Your task to perform on an android device: install app "Google Play services" Image 0: 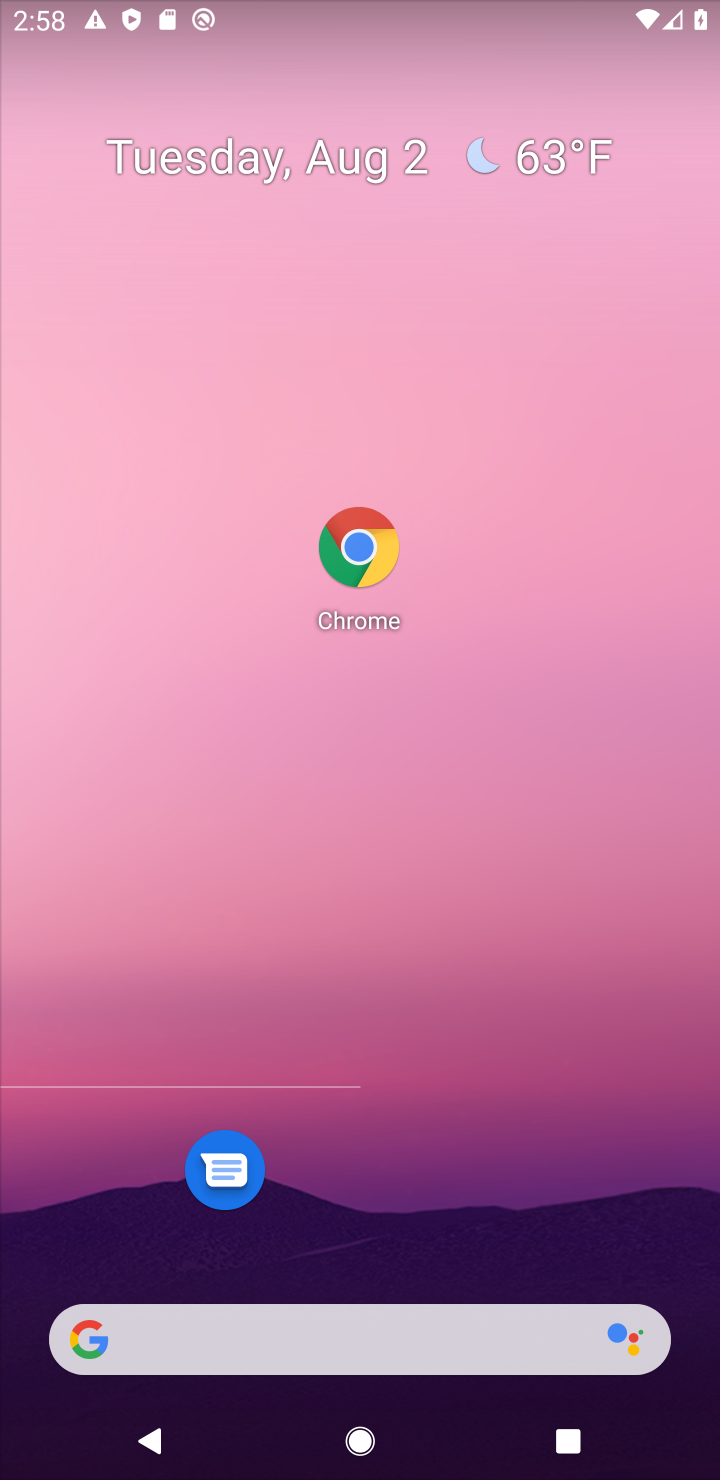
Step 0: press back button
Your task to perform on an android device: install app "Google Play services" Image 1: 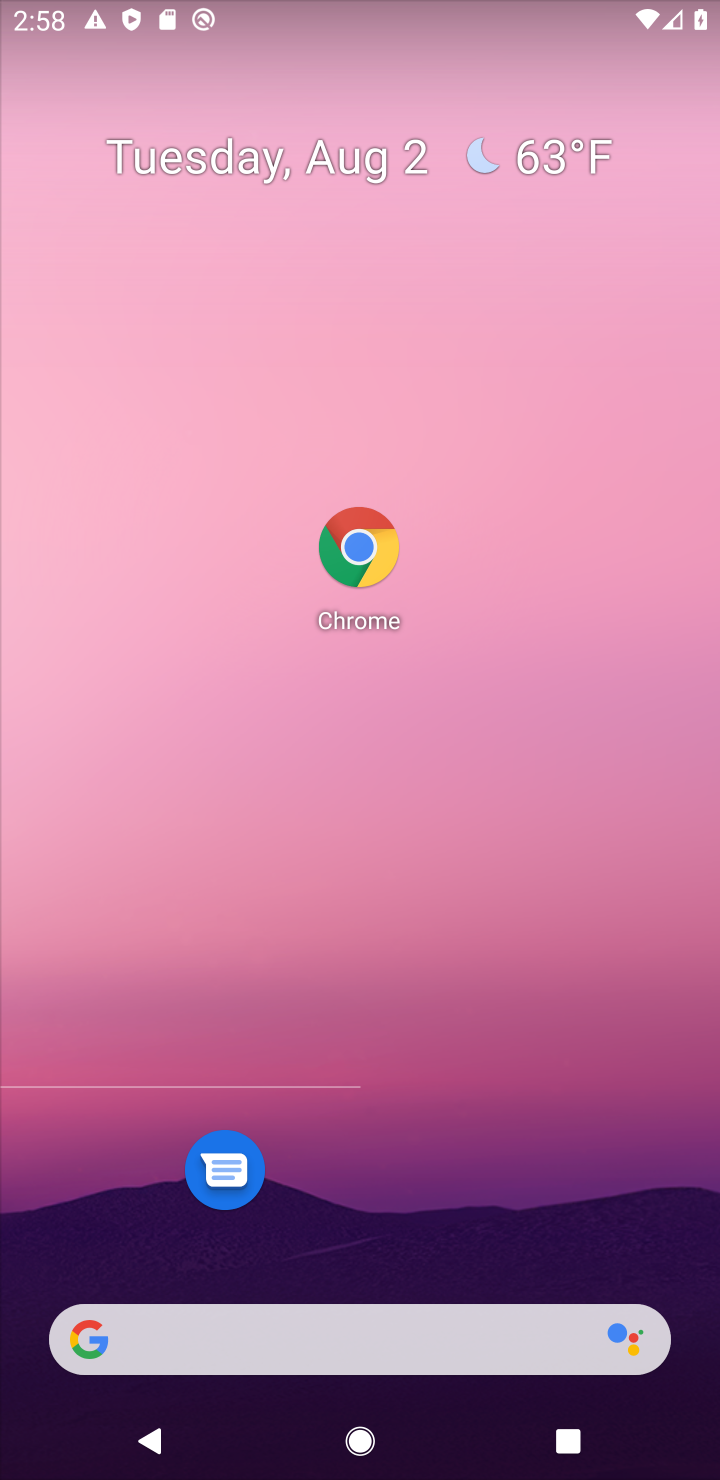
Step 1: drag from (418, 487) to (244, 581)
Your task to perform on an android device: install app "Google Play services" Image 2: 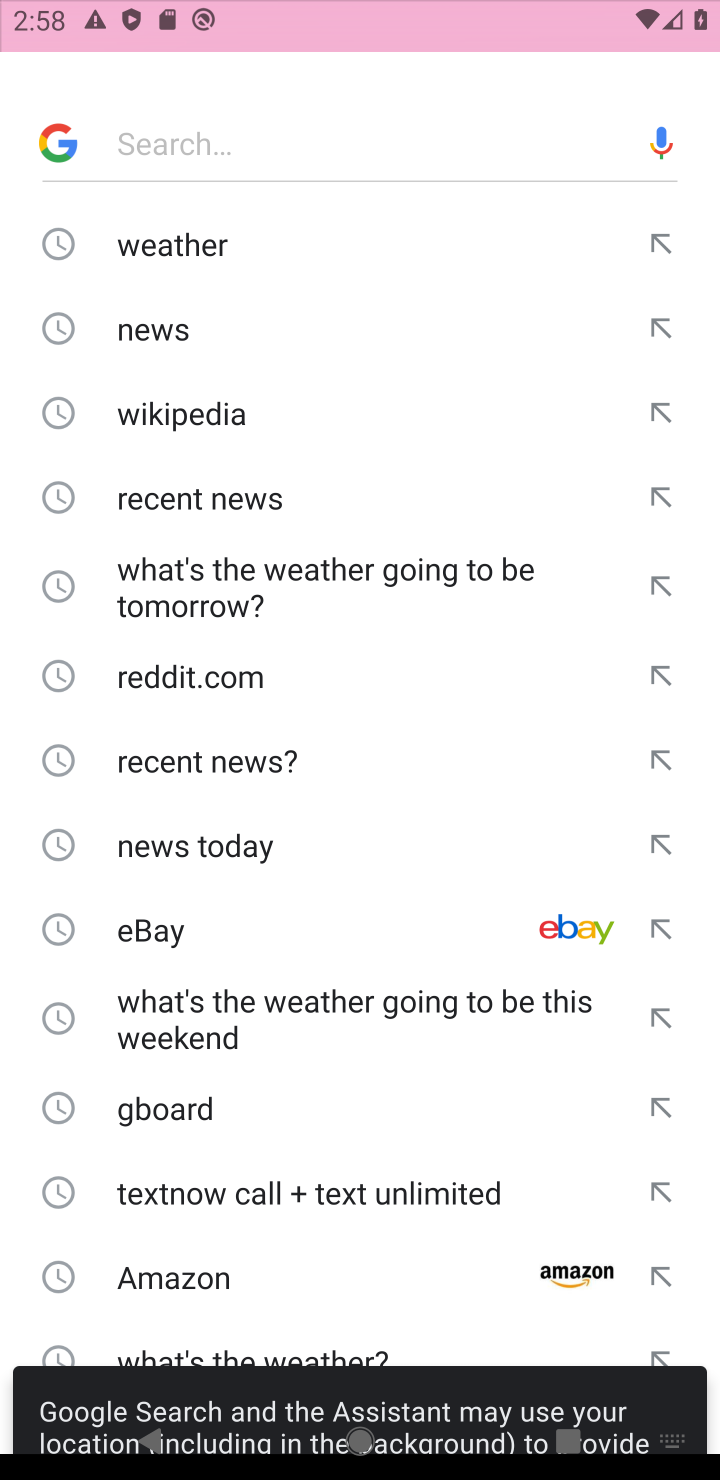
Step 2: click (201, 394)
Your task to perform on an android device: install app "Google Play services" Image 3: 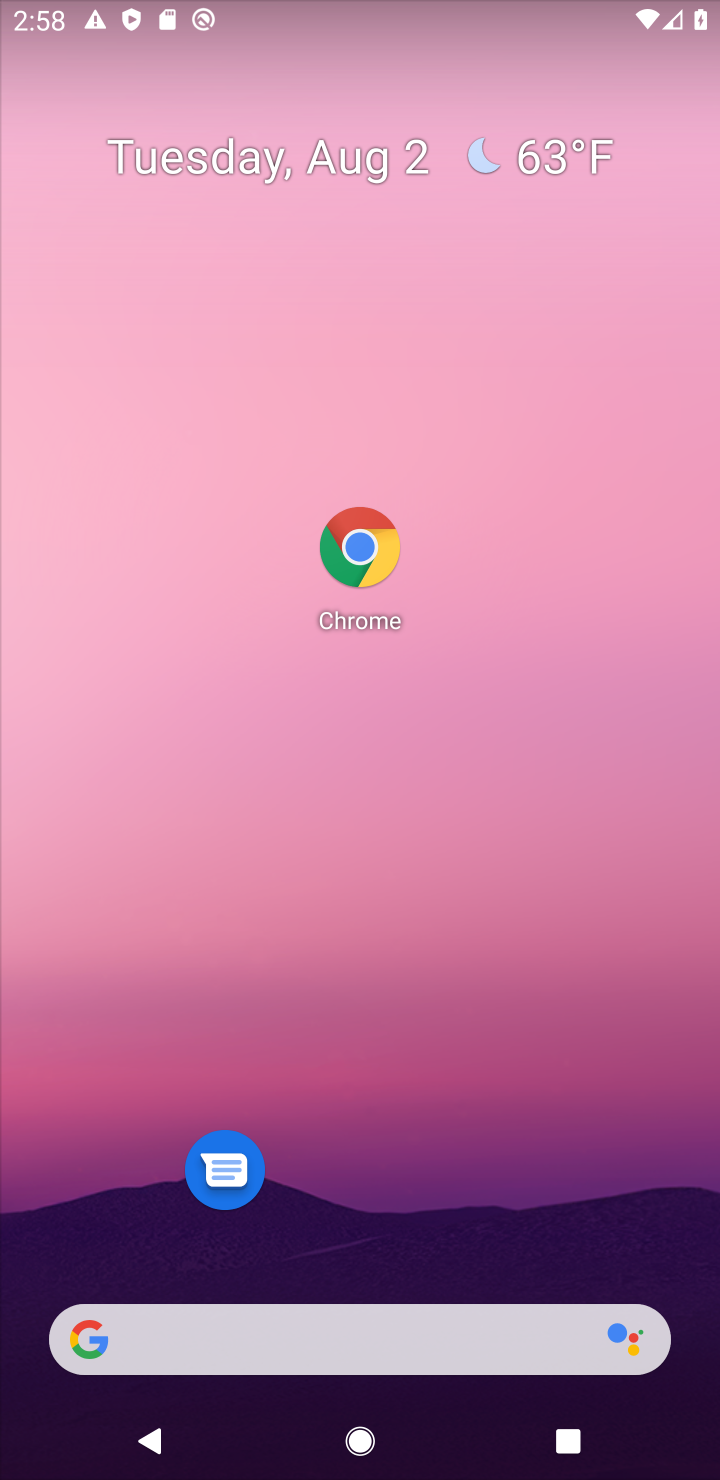
Step 3: press back button
Your task to perform on an android device: install app "Google Play services" Image 4: 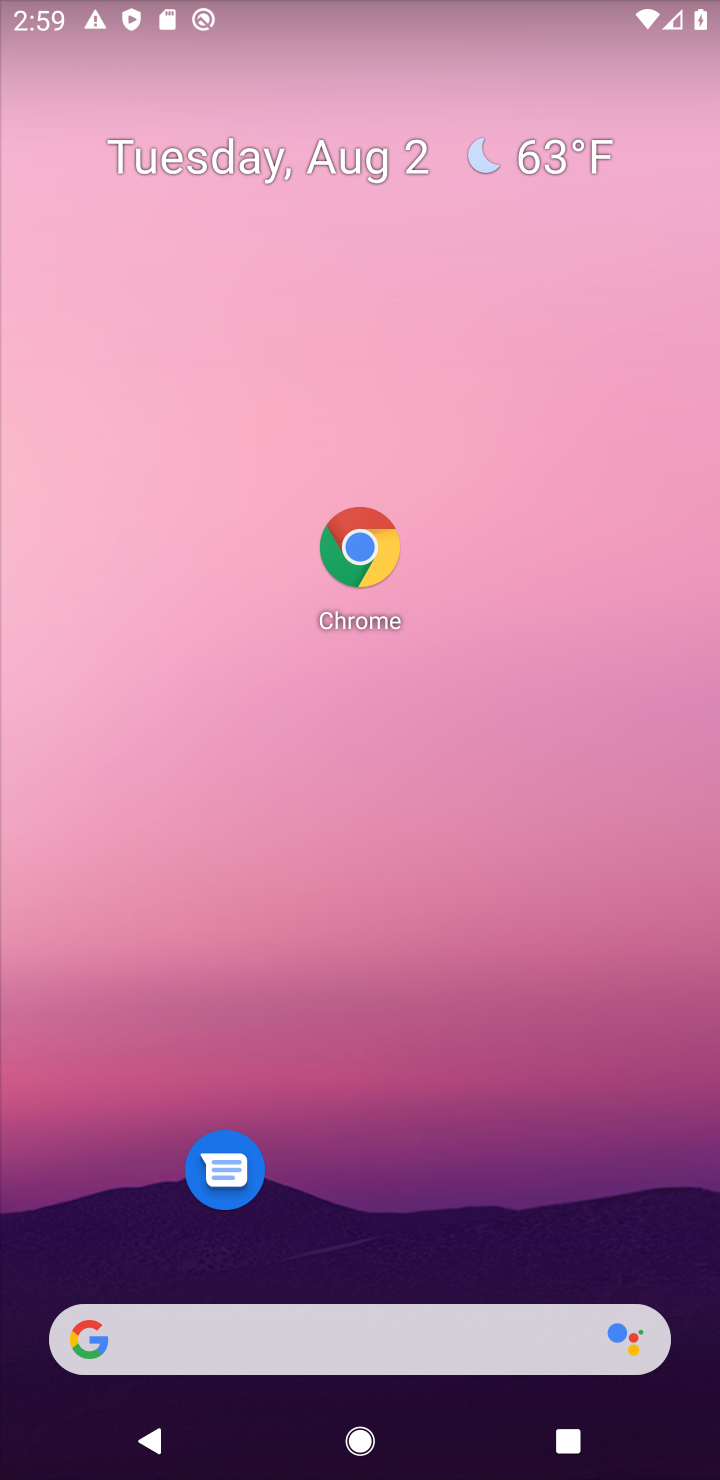
Step 4: drag from (468, 865) to (260, 32)
Your task to perform on an android device: install app "Google Play services" Image 5: 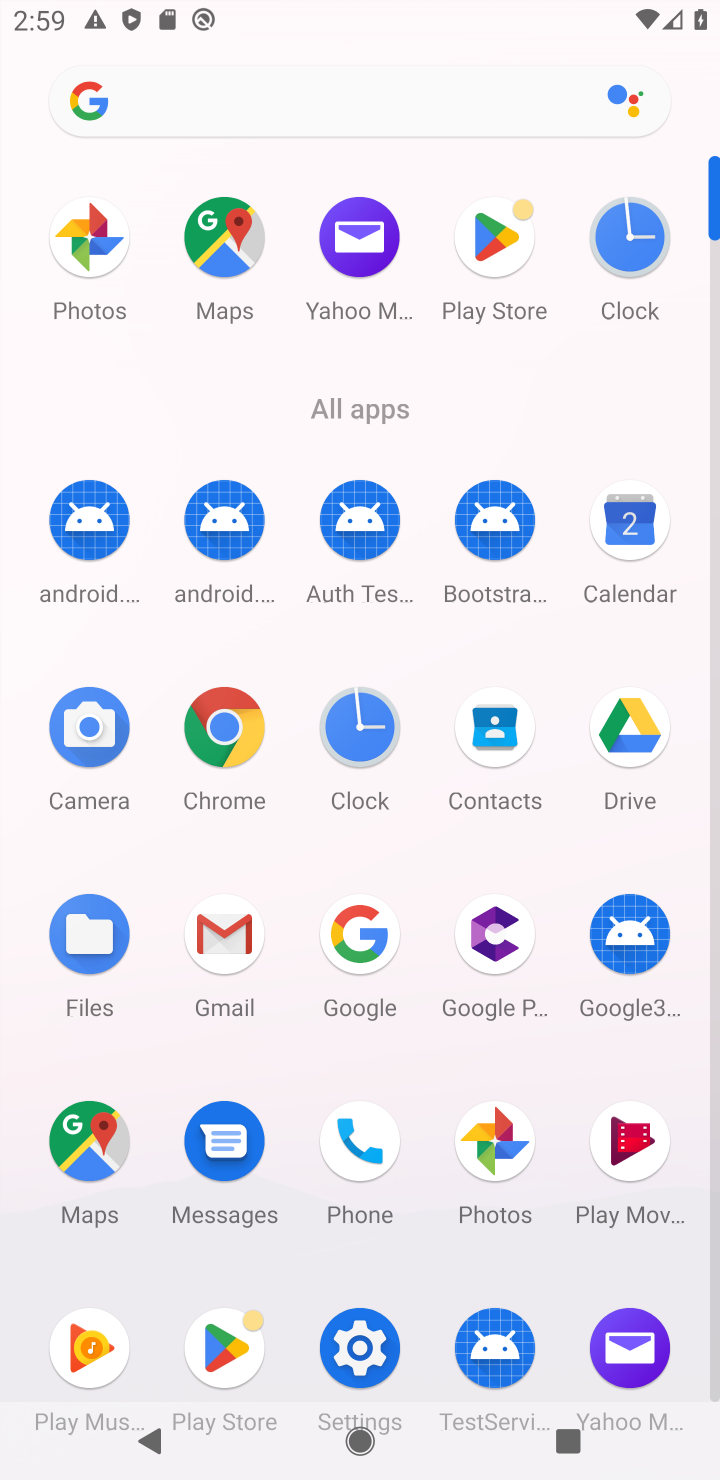
Step 5: click (470, 221)
Your task to perform on an android device: install app "Google Play services" Image 6: 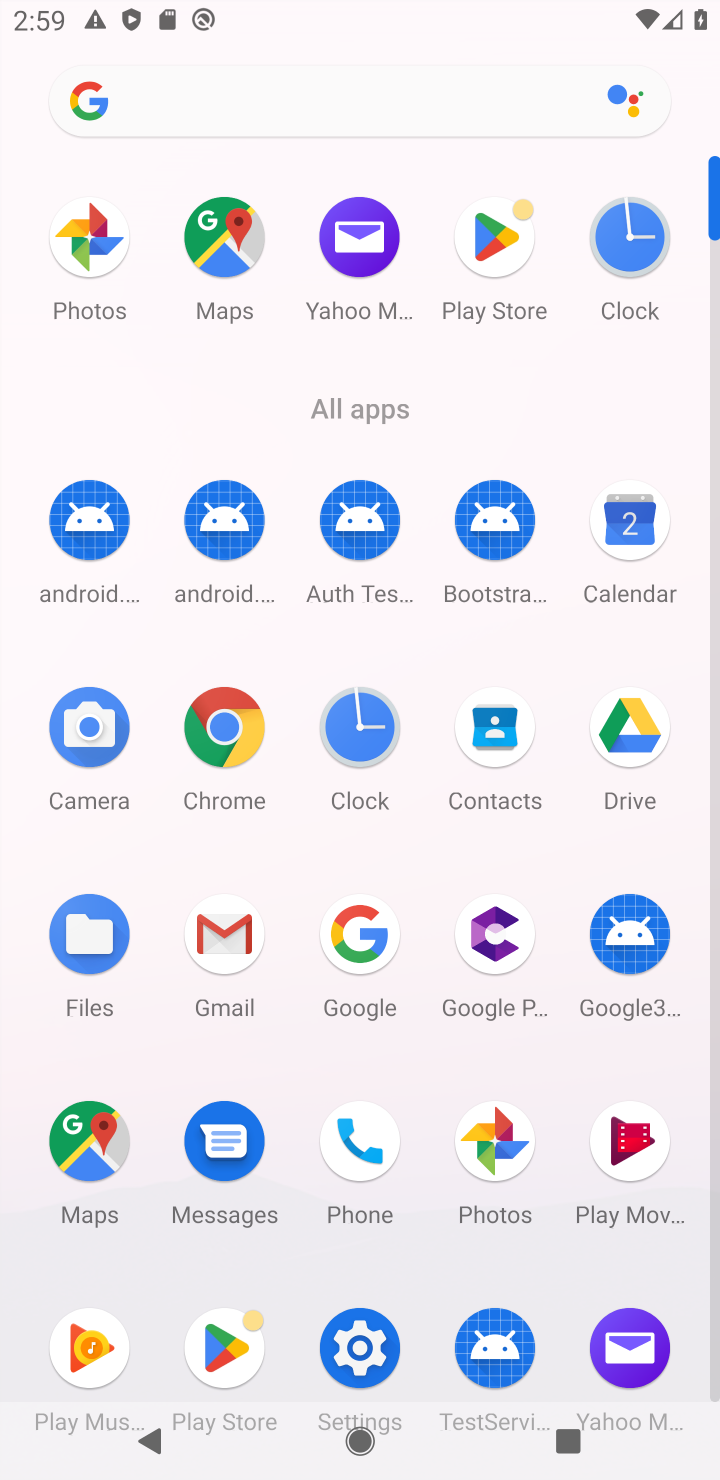
Step 6: click (527, 246)
Your task to perform on an android device: install app "Google Play services" Image 7: 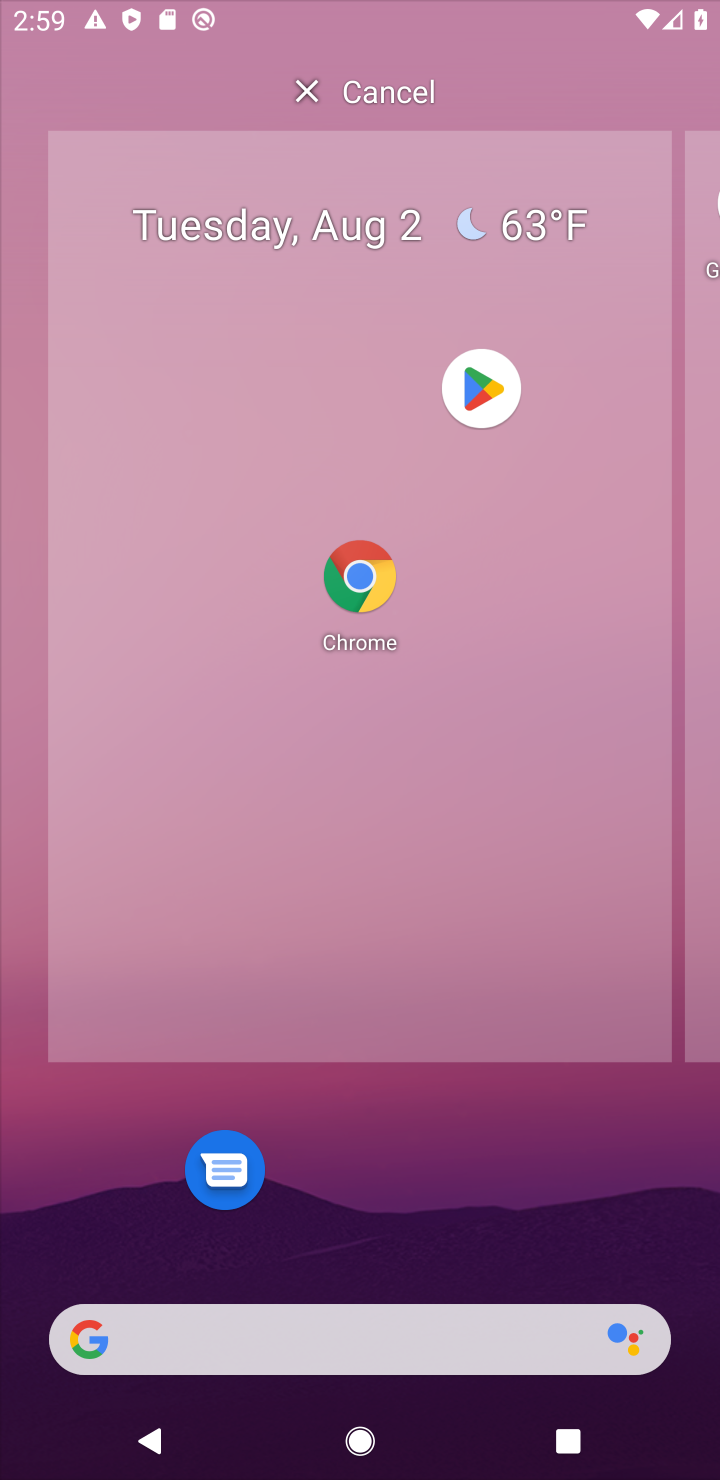
Step 7: click (267, 538)
Your task to perform on an android device: install app "Google Play services" Image 8: 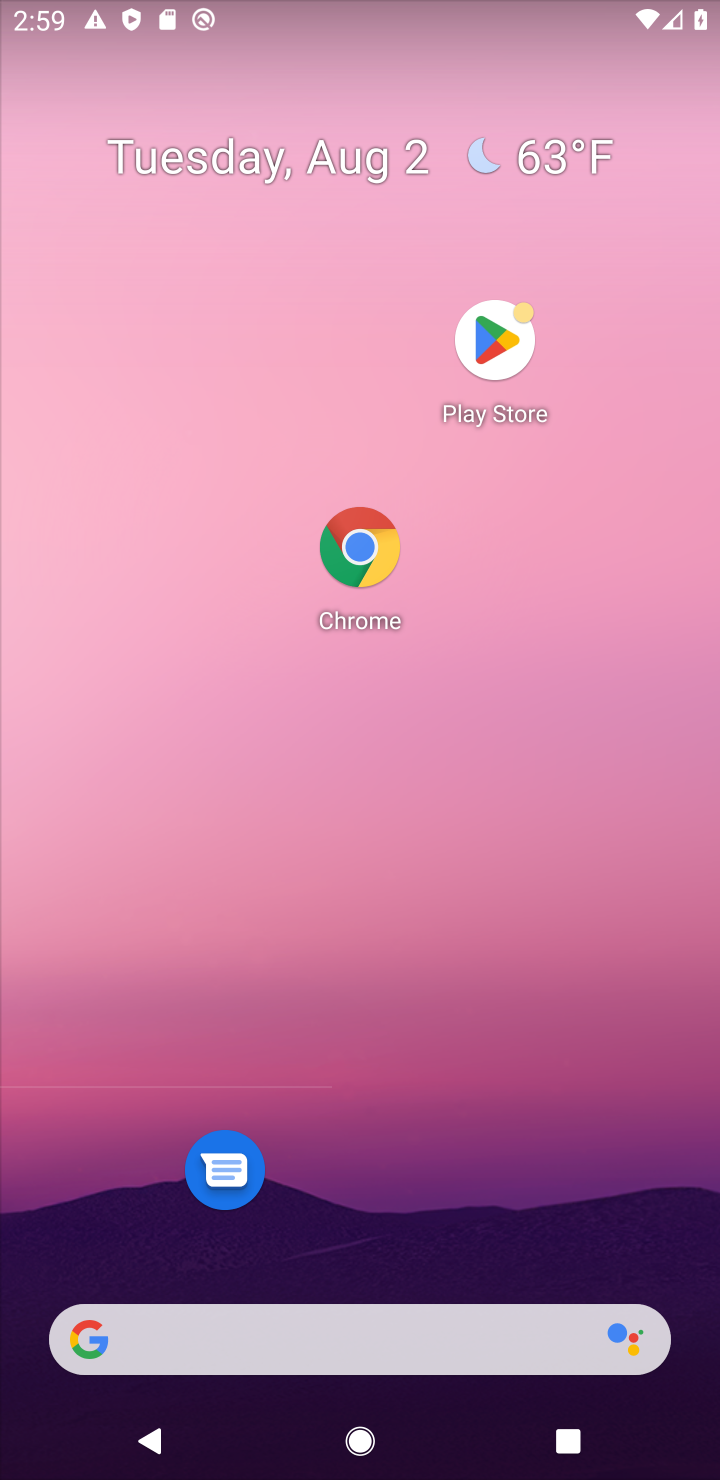
Step 8: drag from (169, 1165) to (101, 161)
Your task to perform on an android device: install app "Google Play services" Image 9: 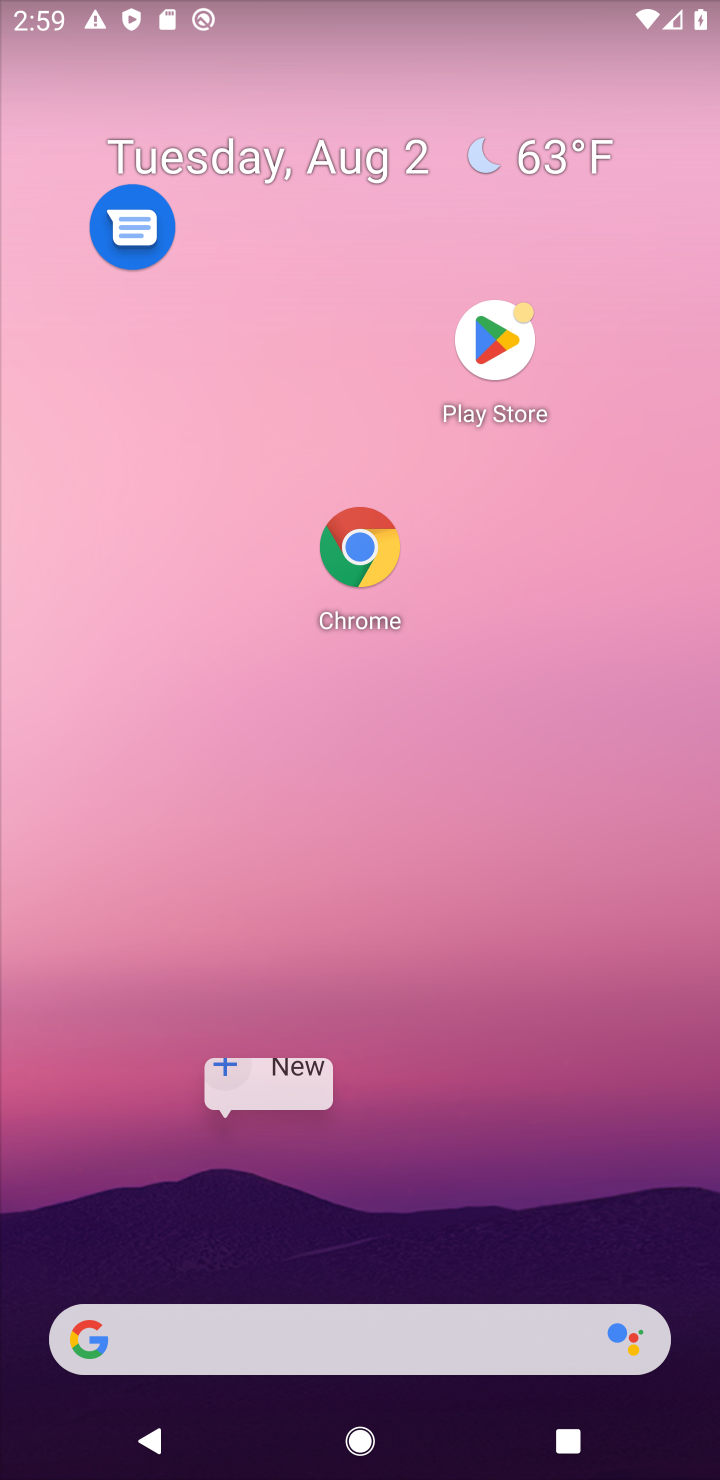
Step 9: click (436, 330)
Your task to perform on an android device: install app "Google Play services" Image 10: 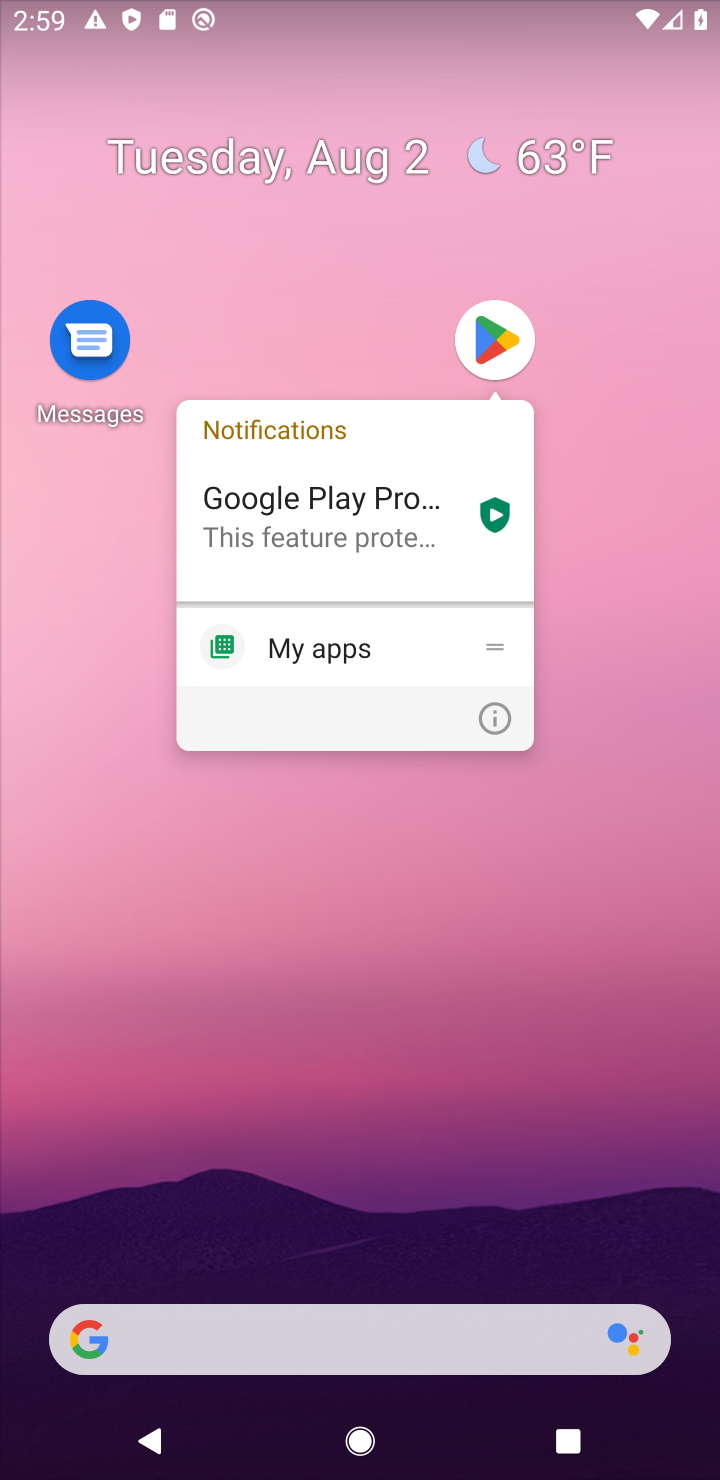
Step 10: click (485, 340)
Your task to perform on an android device: install app "Google Play services" Image 11: 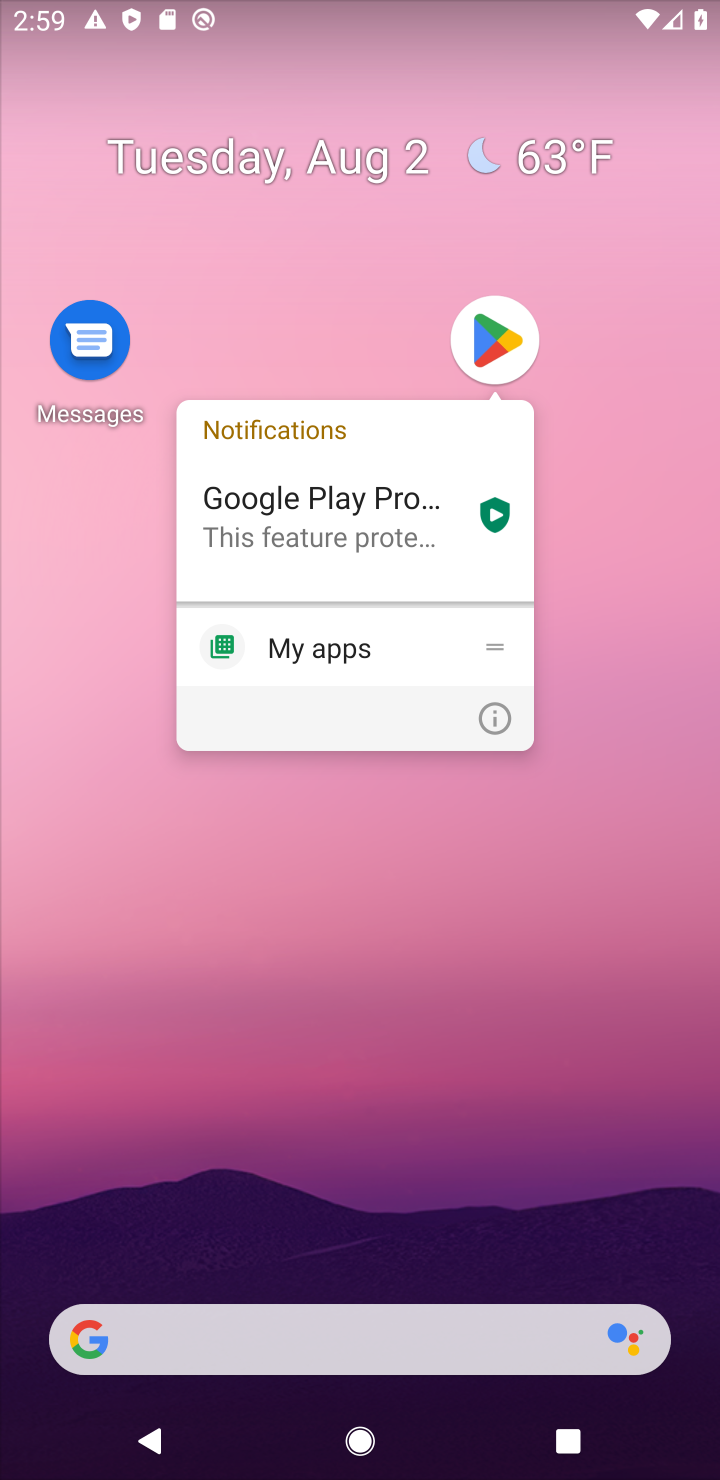
Step 11: click (485, 345)
Your task to perform on an android device: install app "Google Play services" Image 12: 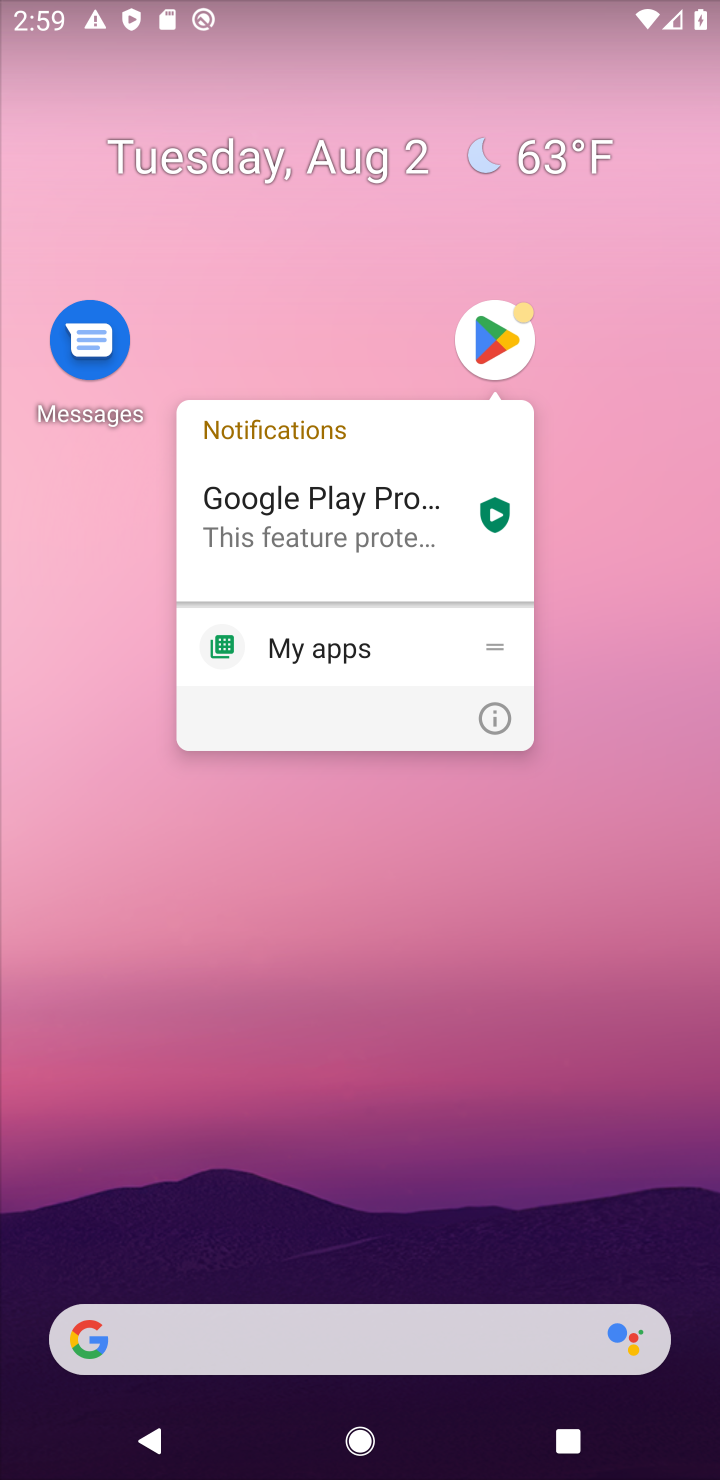
Step 12: click (329, 654)
Your task to perform on an android device: install app "Google Play services" Image 13: 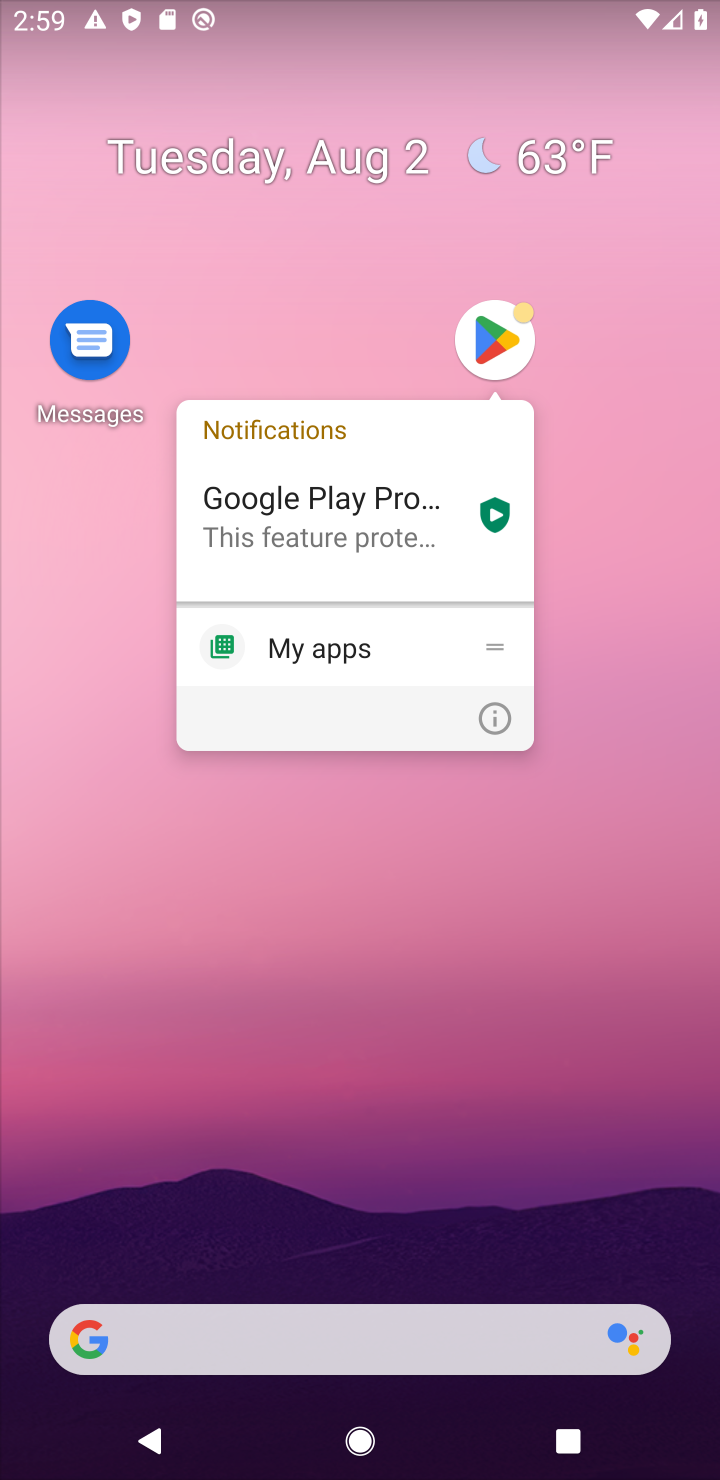
Step 13: click (347, 652)
Your task to perform on an android device: install app "Google Play services" Image 14: 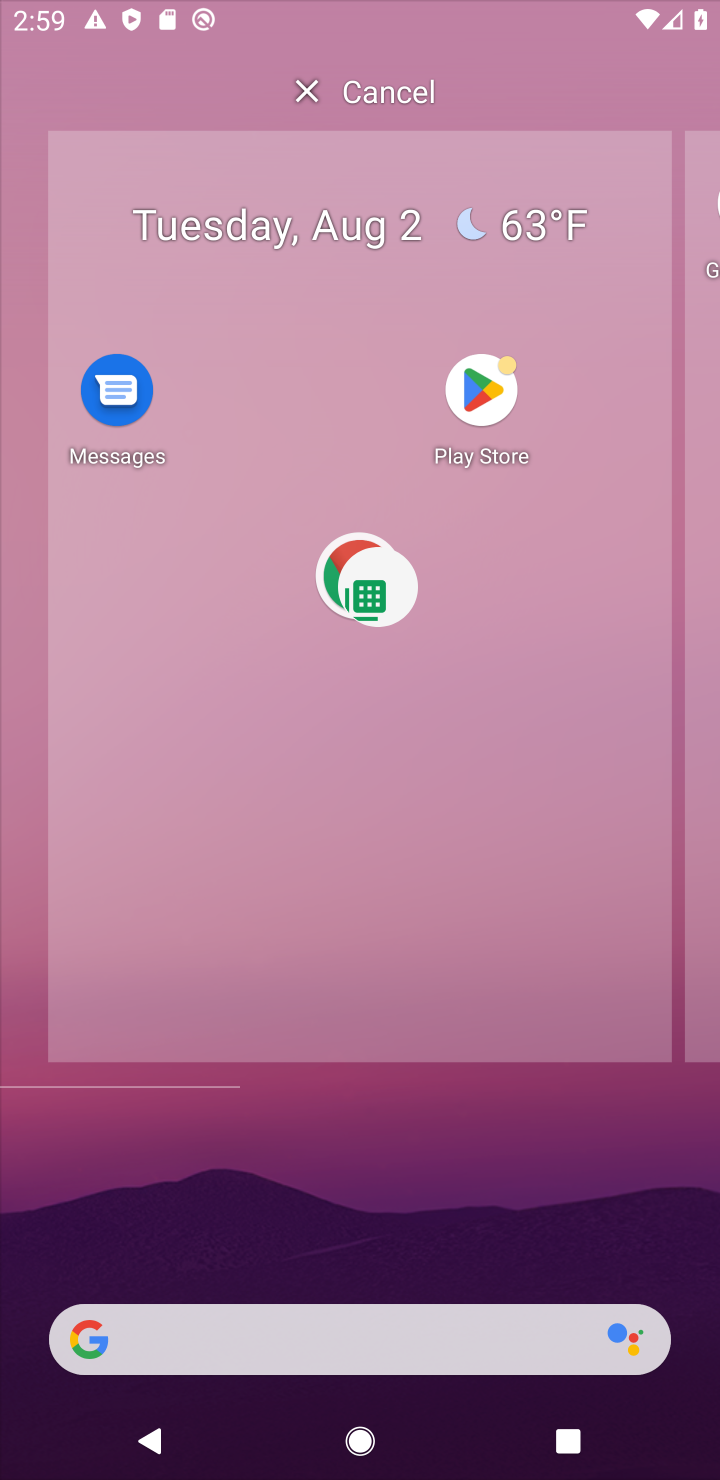
Step 14: click (370, 622)
Your task to perform on an android device: install app "Google Play services" Image 15: 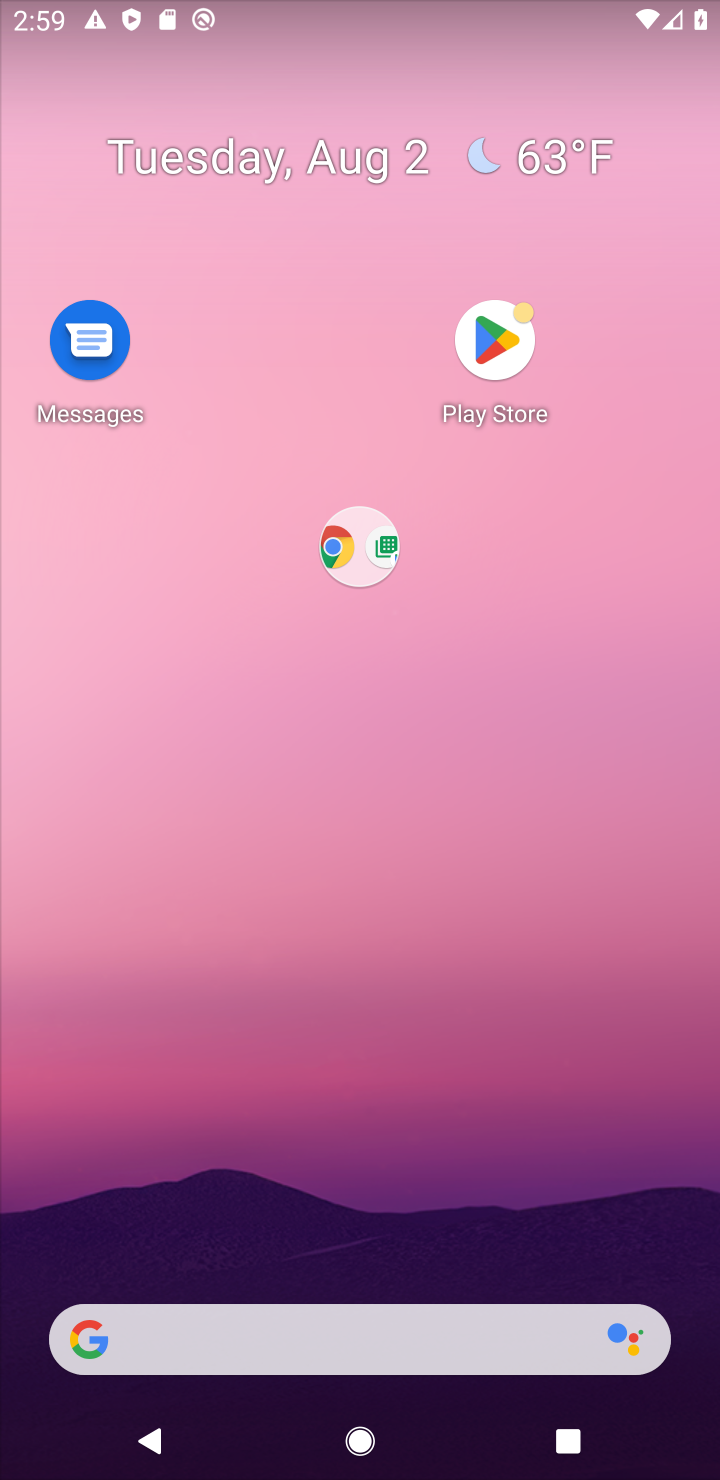
Step 15: drag from (487, 1206) to (427, 195)
Your task to perform on an android device: install app "Google Play services" Image 16: 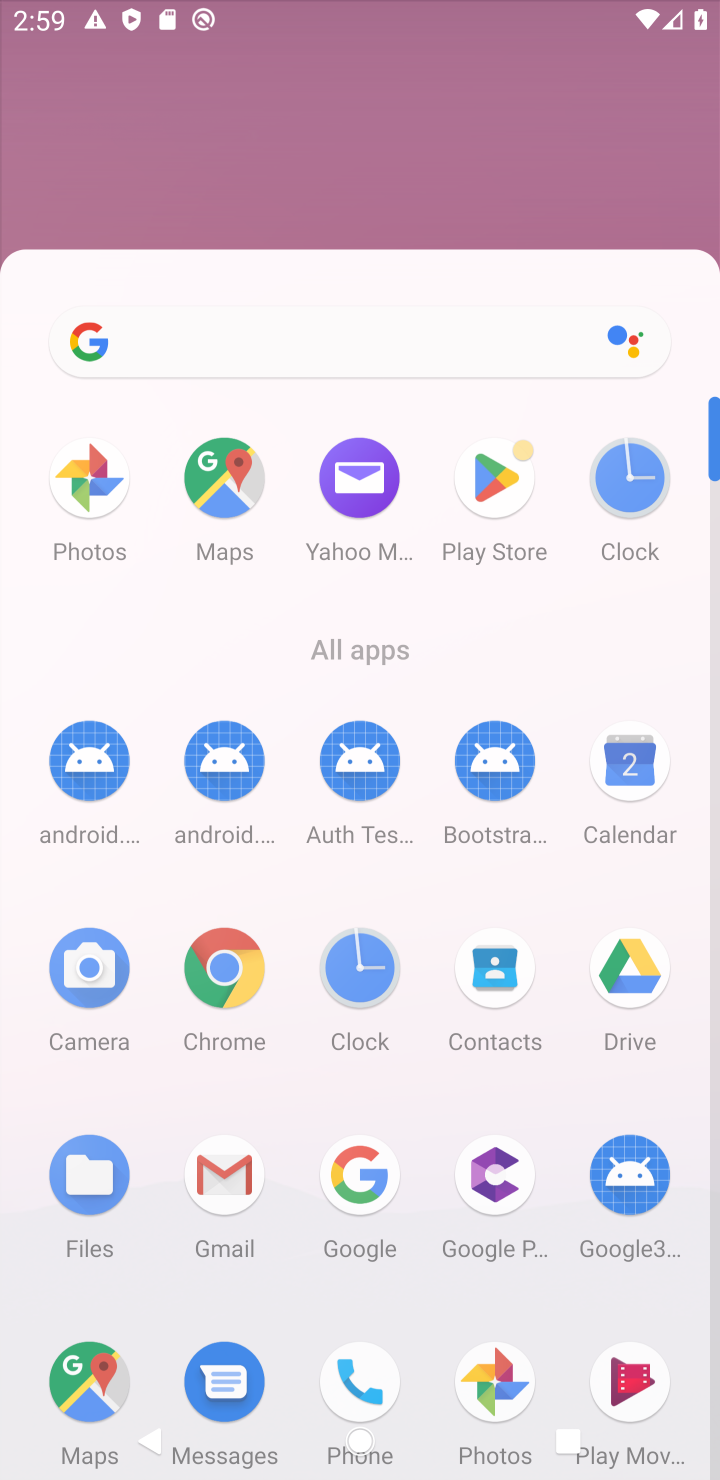
Step 16: click (490, 334)
Your task to perform on an android device: install app "Google Play services" Image 17: 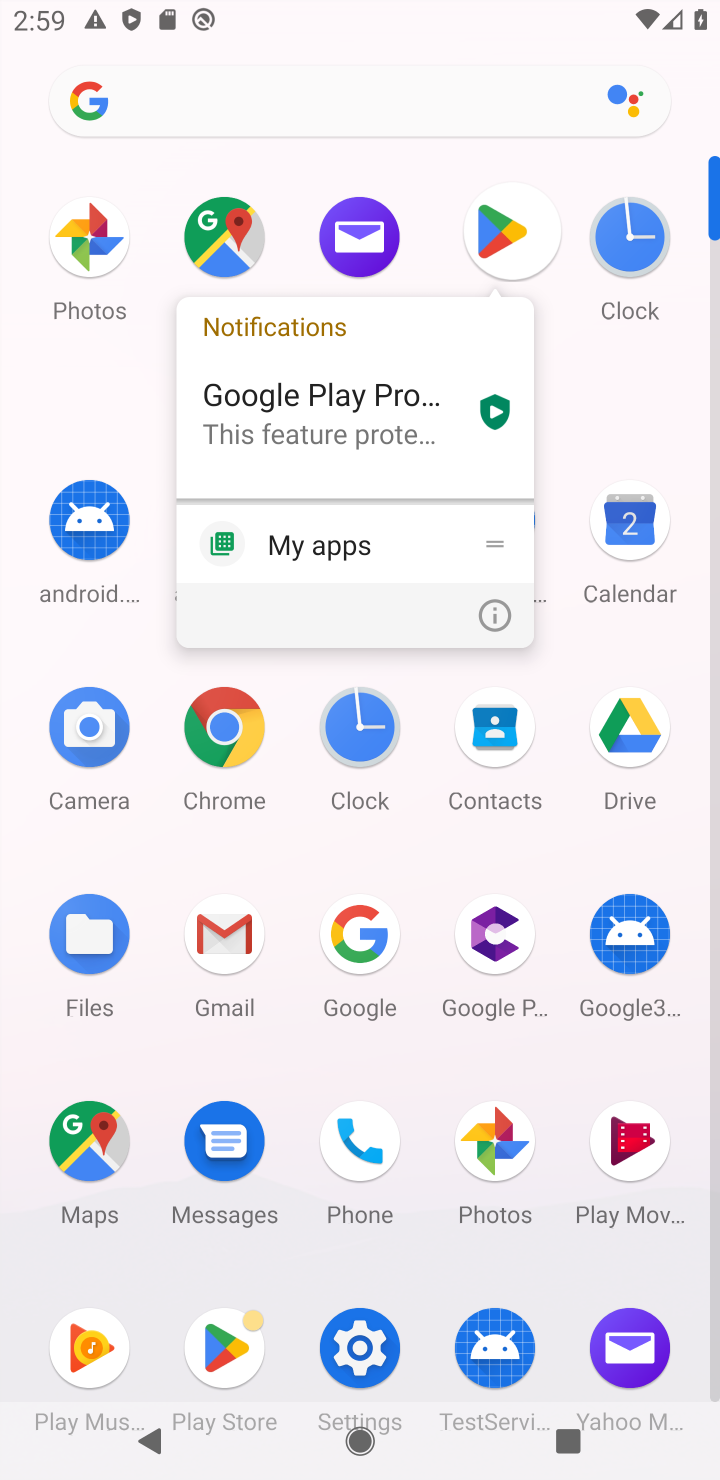
Step 17: click (498, 291)
Your task to perform on an android device: install app "Google Play services" Image 18: 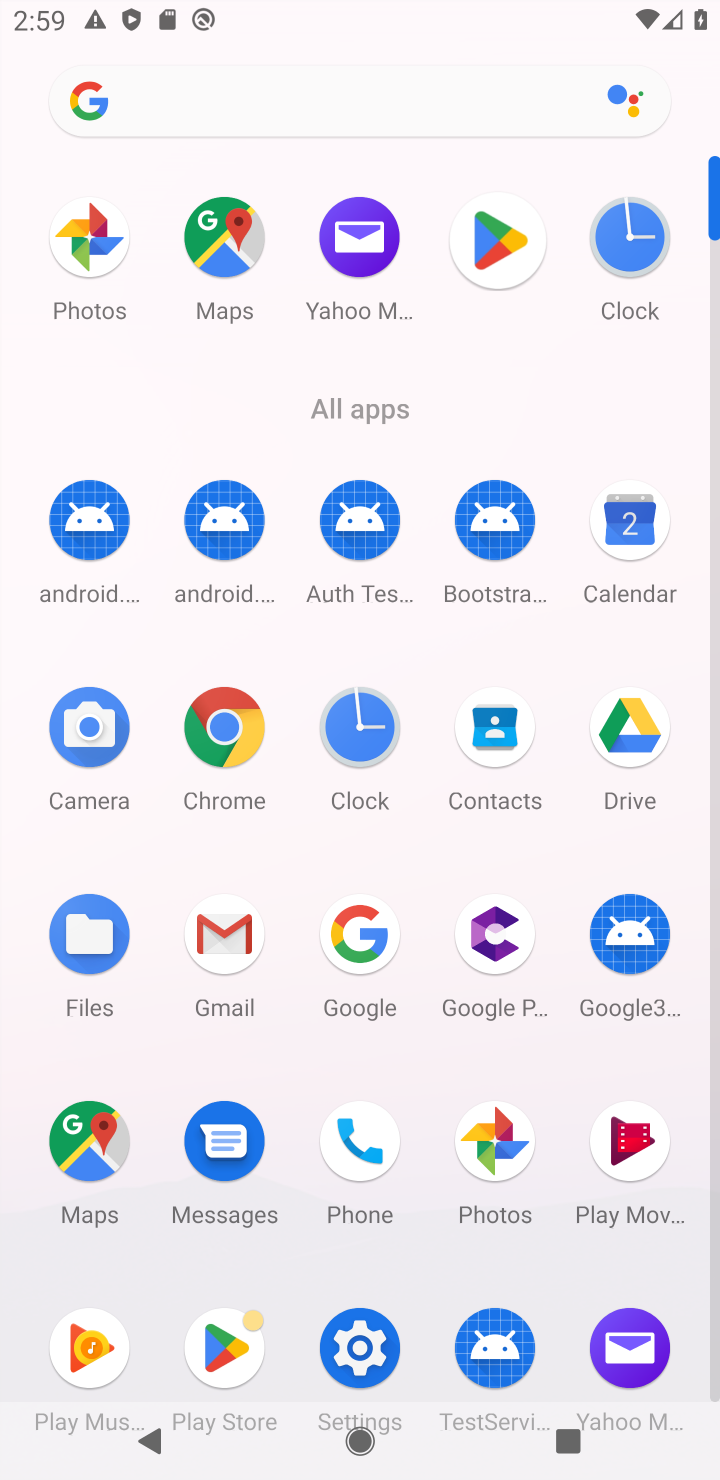
Step 18: click (331, 533)
Your task to perform on an android device: install app "Google Play services" Image 19: 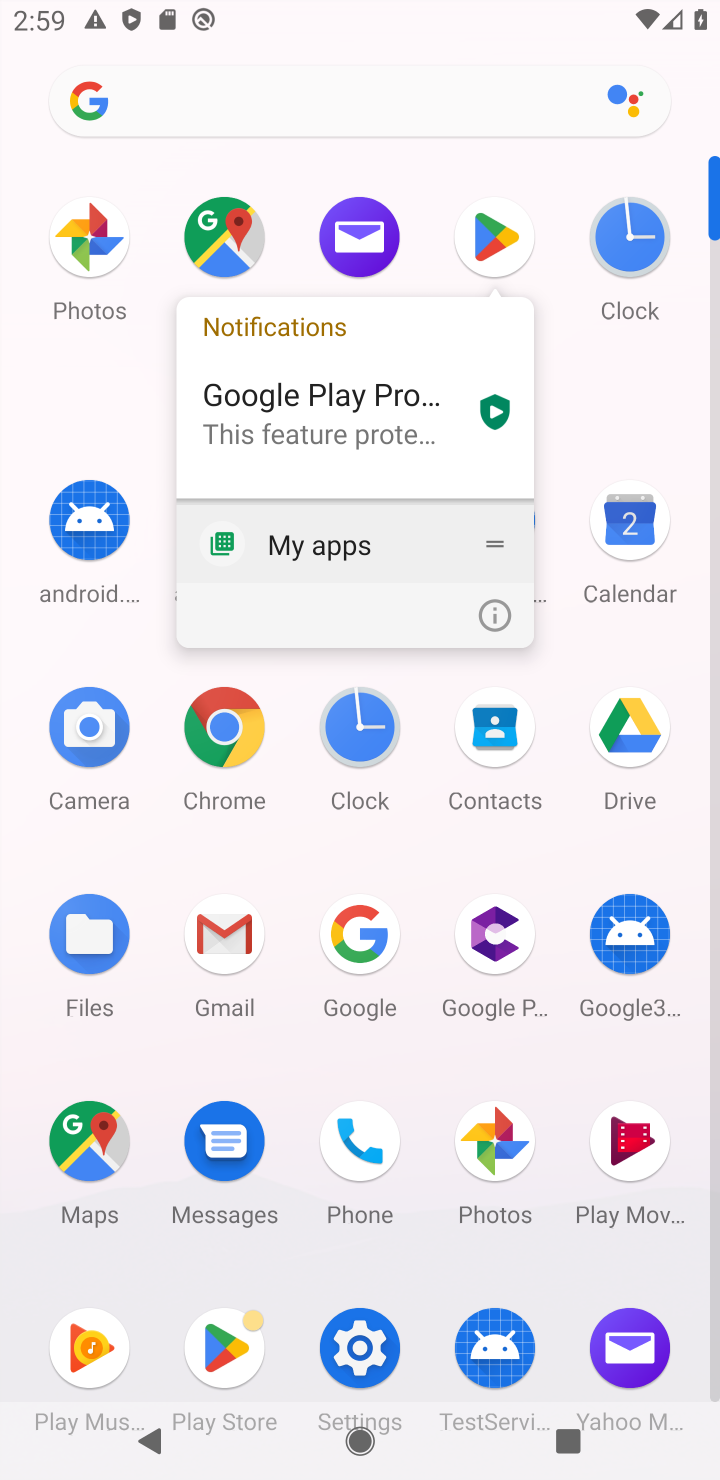
Step 19: click (513, 239)
Your task to perform on an android device: install app "Google Play services" Image 20: 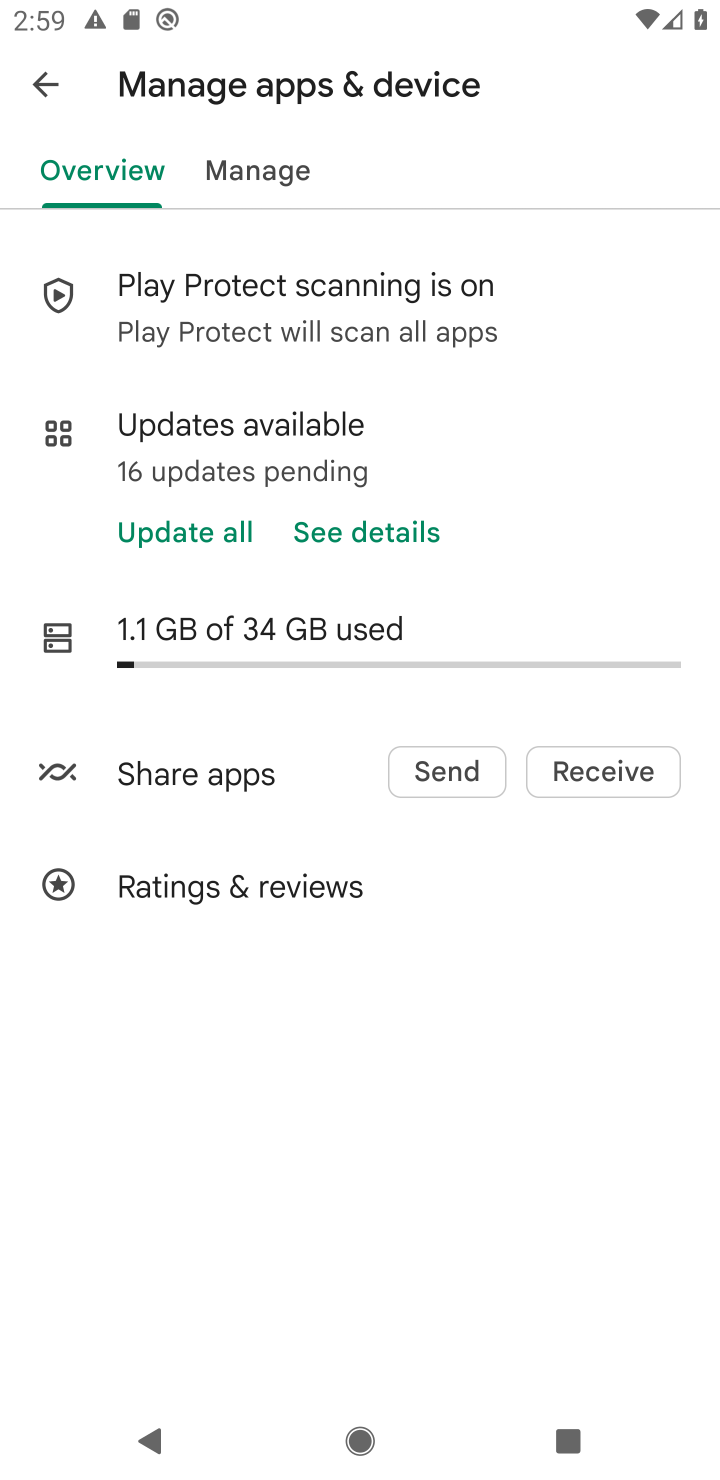
Step 20: click (54, 70)
Your task to perform on an android device: install app "Google Play services" Image 21: 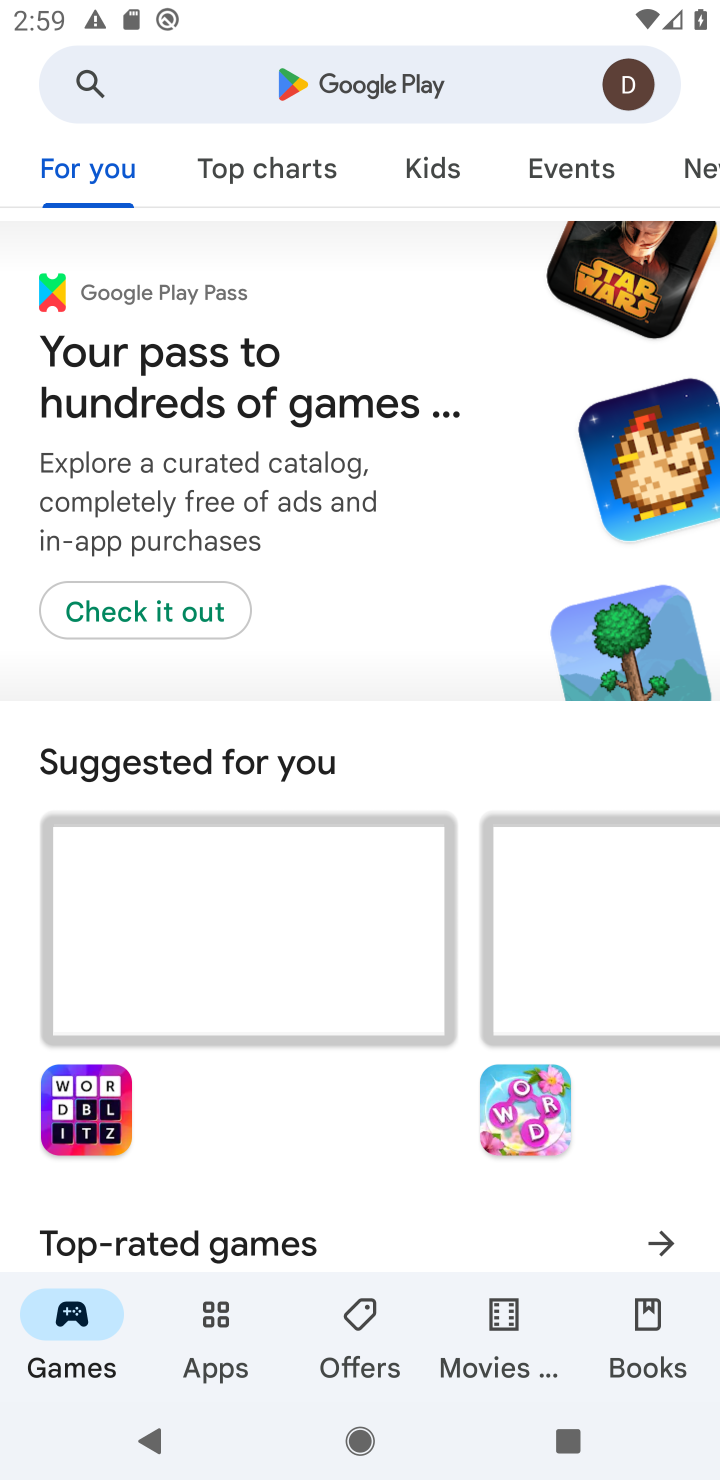
Step 21: click (394, 100)
Your task to perform on an android device: install app "Google Play services" Image 22: 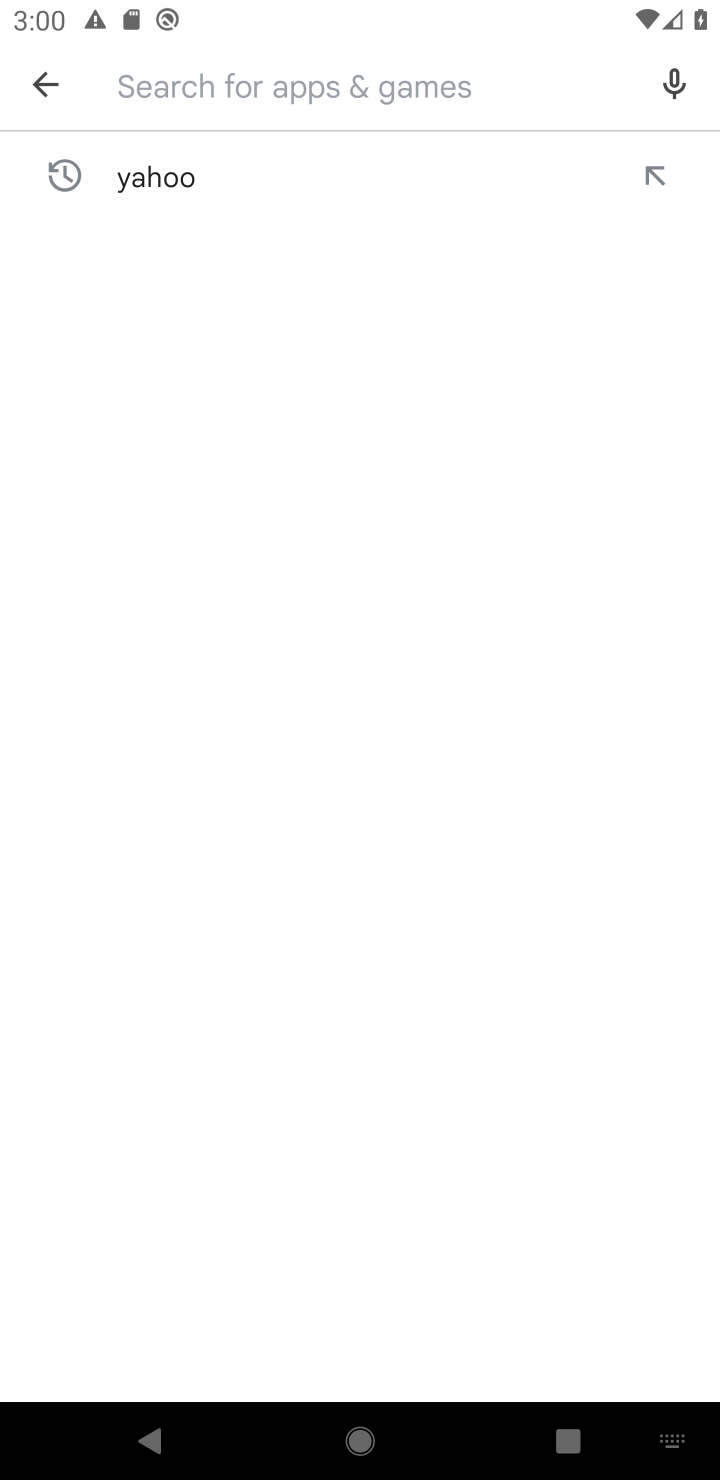
Step 22: type "Google play"
Your task to perform on an android device: install app "Google Play services" Image 23: 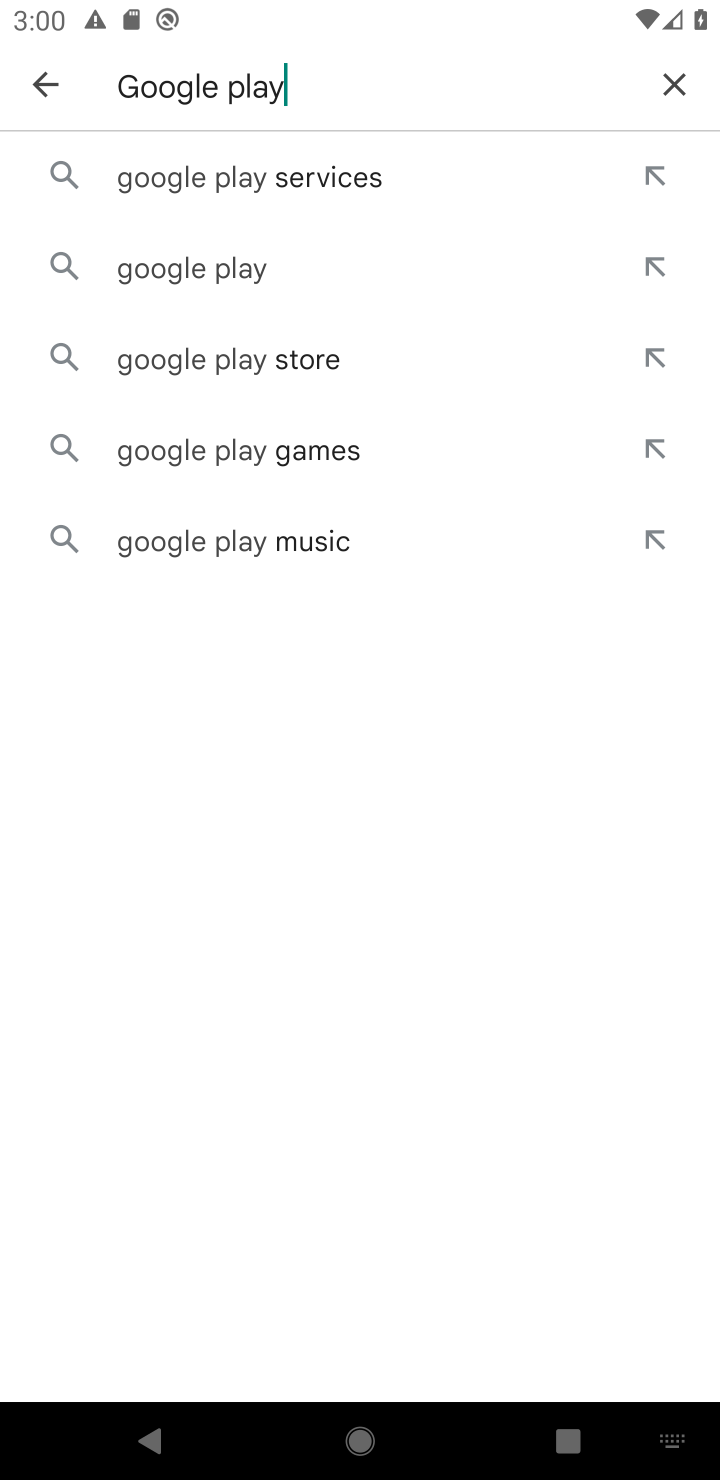
Step 23: click (278, 193)
Your task to perform on an android device: install app "Google Play services" Image 24: 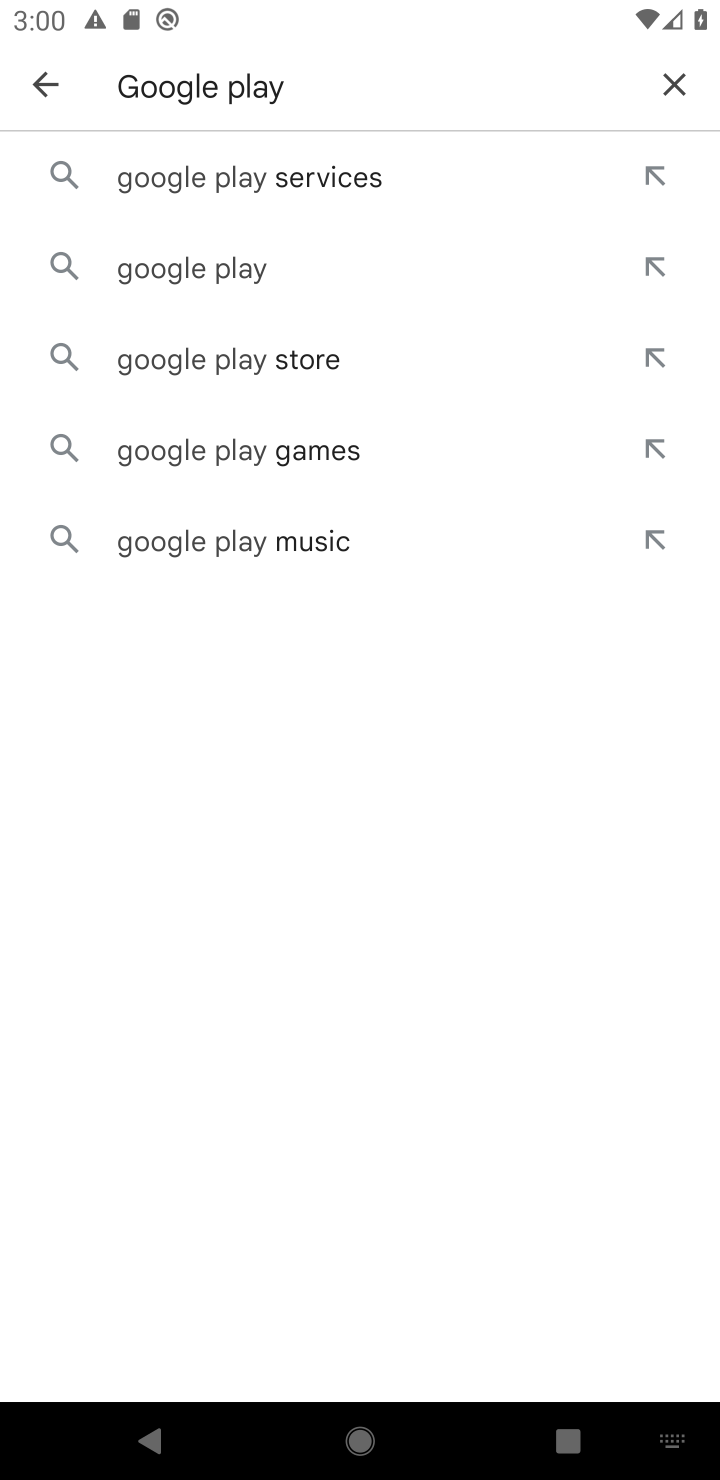
Step 24: click (286, 197)
Your task to perform on an android device: install app "Google Play services" Image 25: 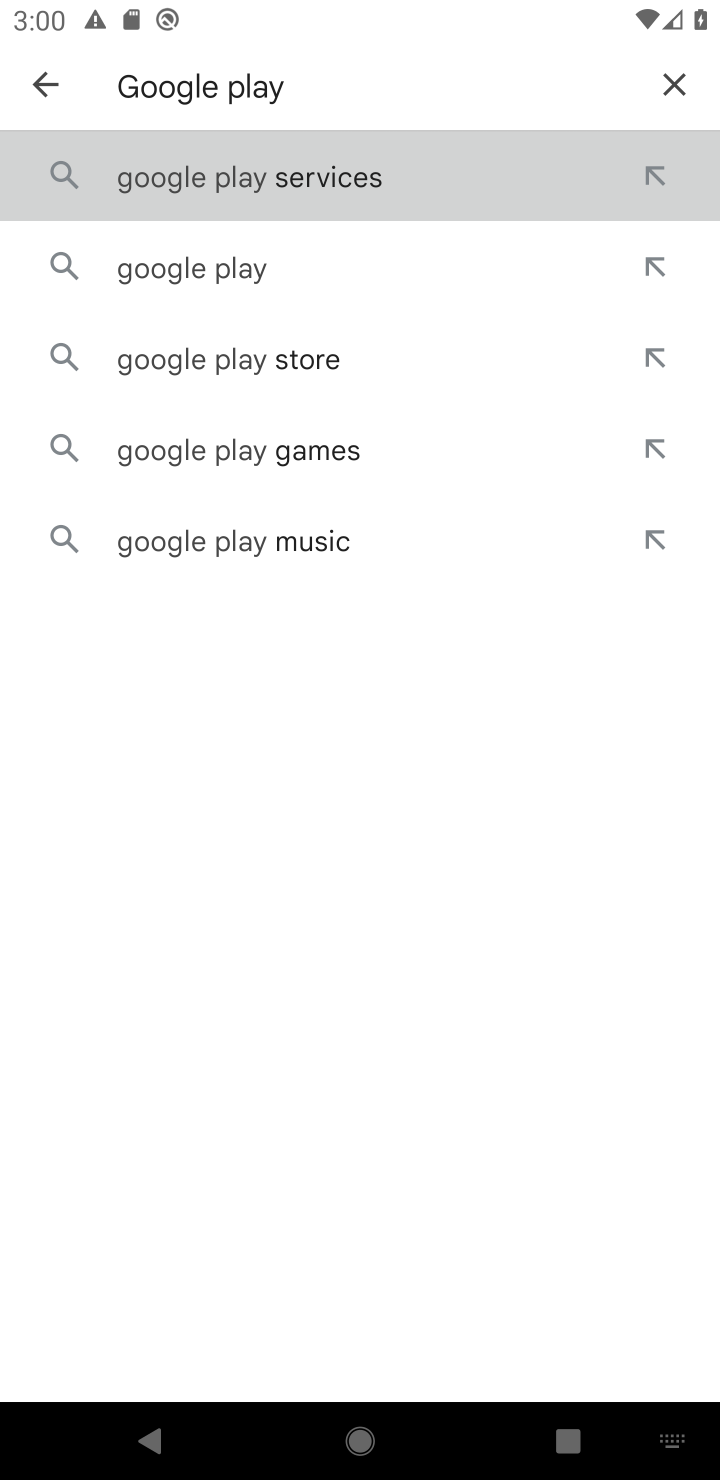
Step 25: click (286, 199)
Your task to perform on an android device: install app "Google Play services" Image 26: 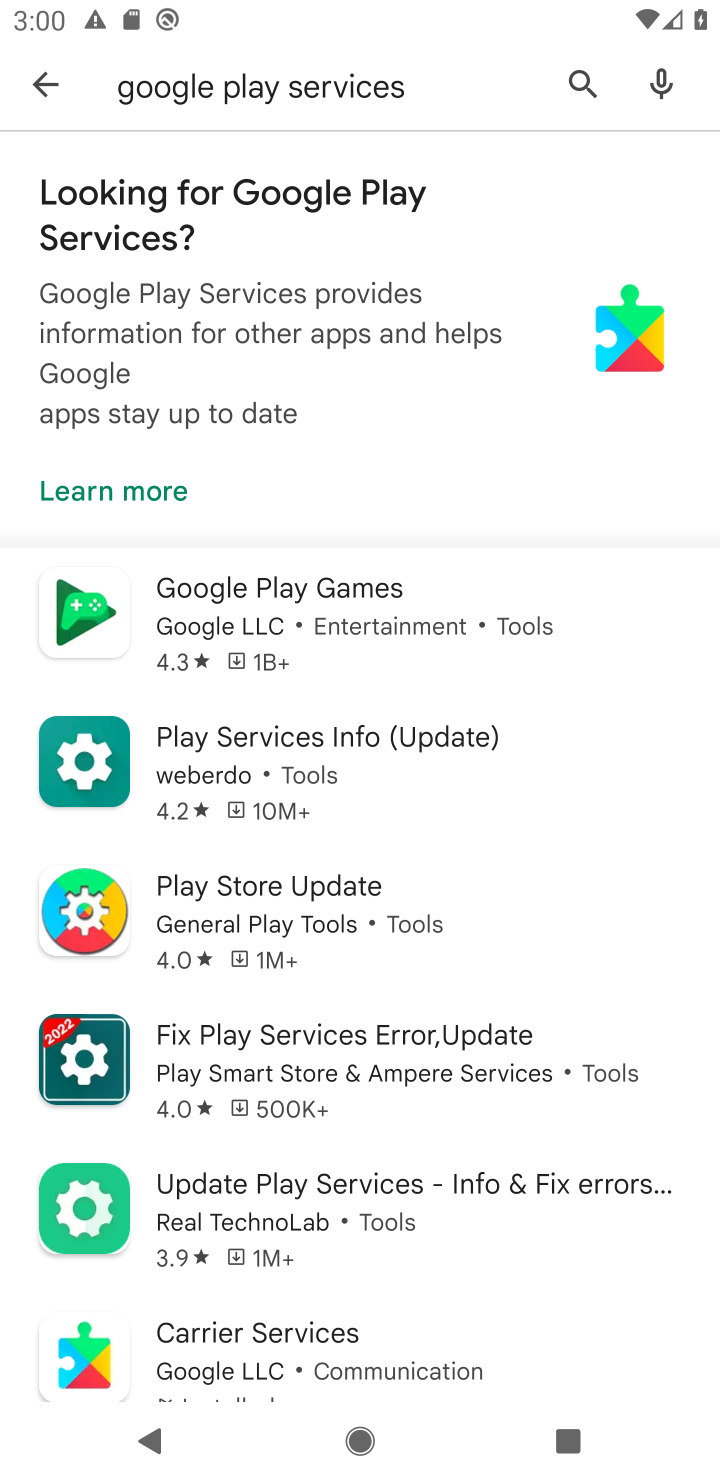
Step 26: click (44, 72)
Your task to perform on an android device: install app "Google Play services" Image 27: 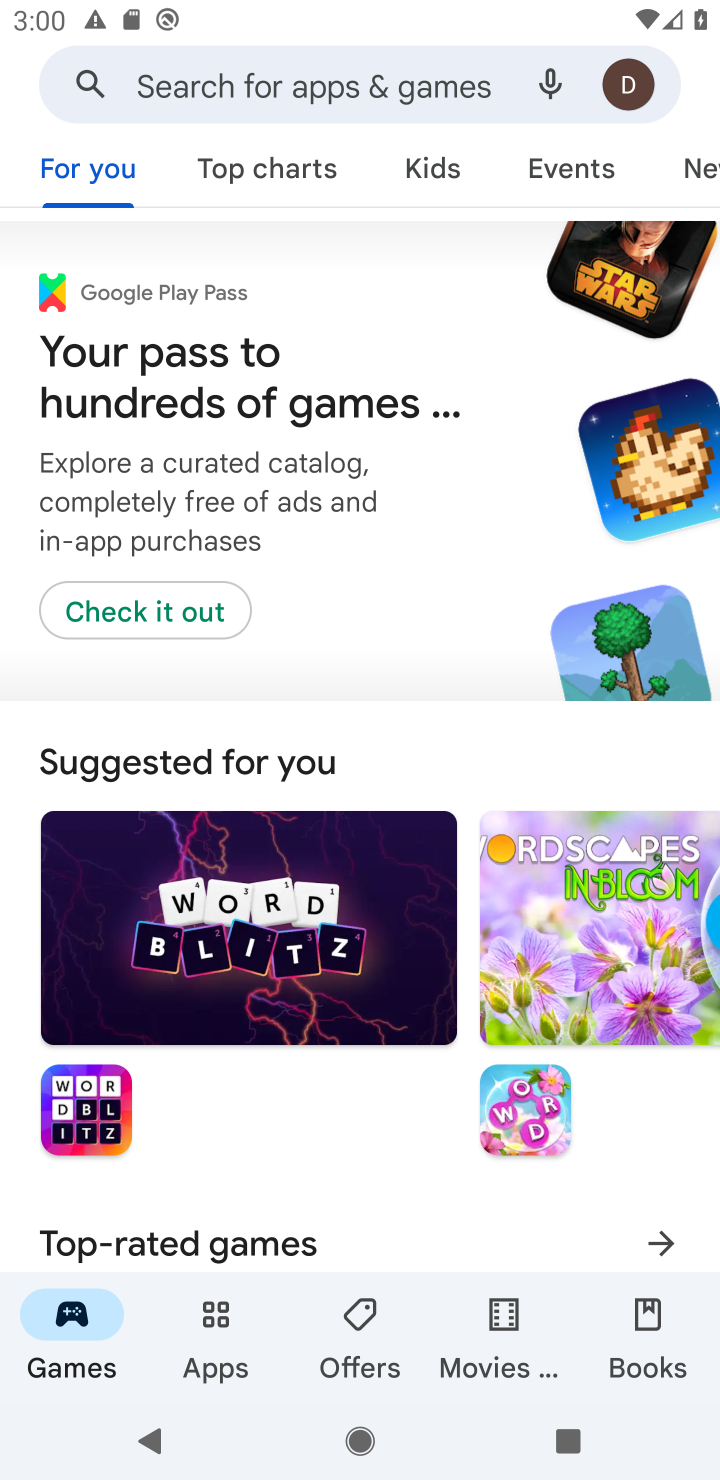
Step 27: click (254, 105)
Your task to perform on an android device: install app "Google Play services" Image 28: 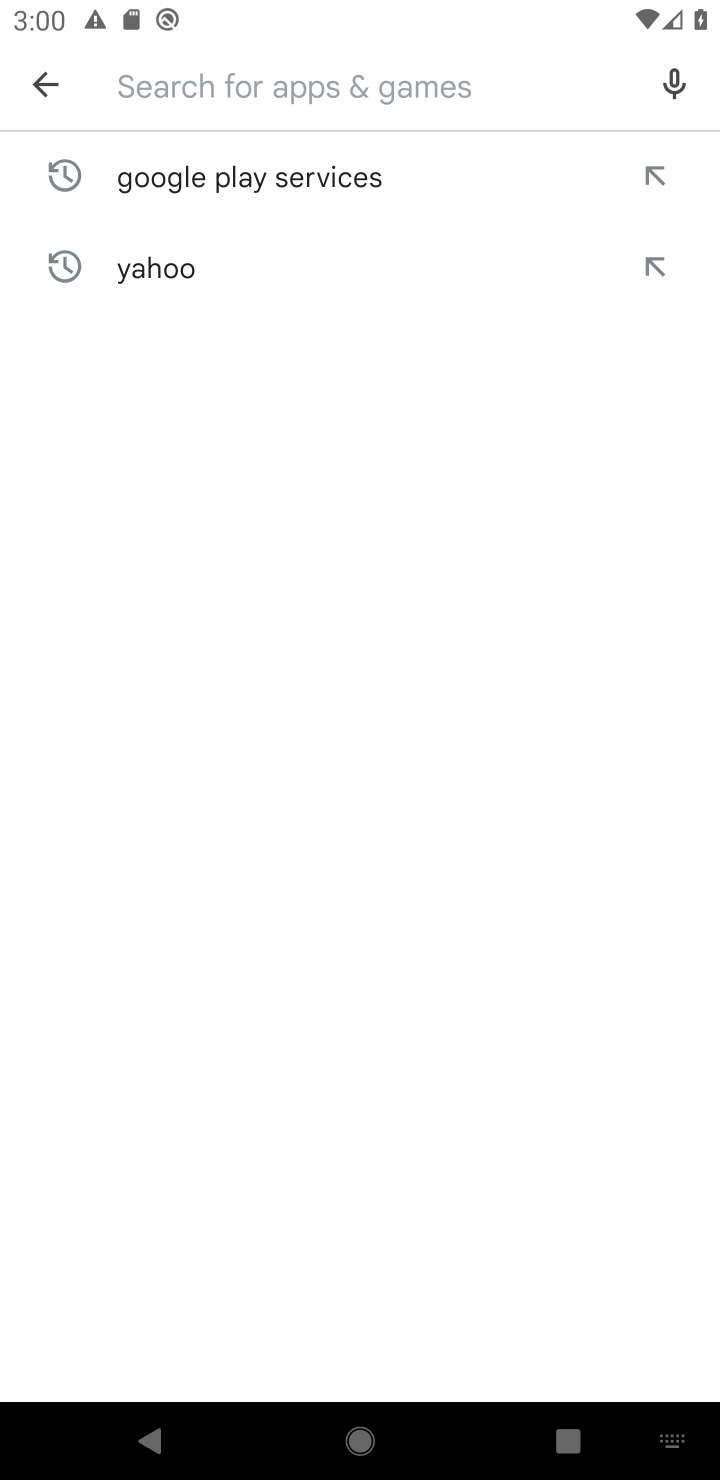
Step 28: click (243, 188)
Your task to perform on an android device: install app "Google Play services" Image 29: 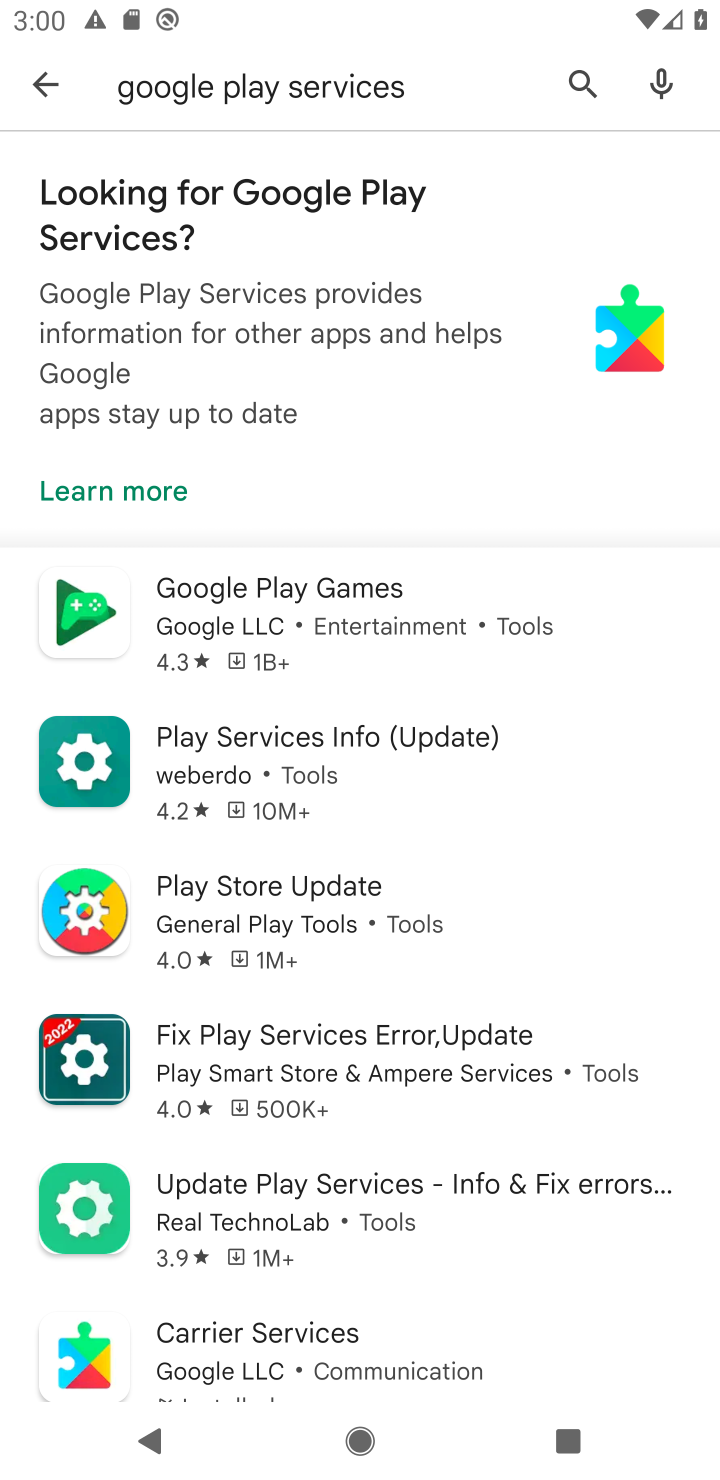
Step 29: task complete